Your task to perform on an android device: turn off translation in the chrome app Image 0: 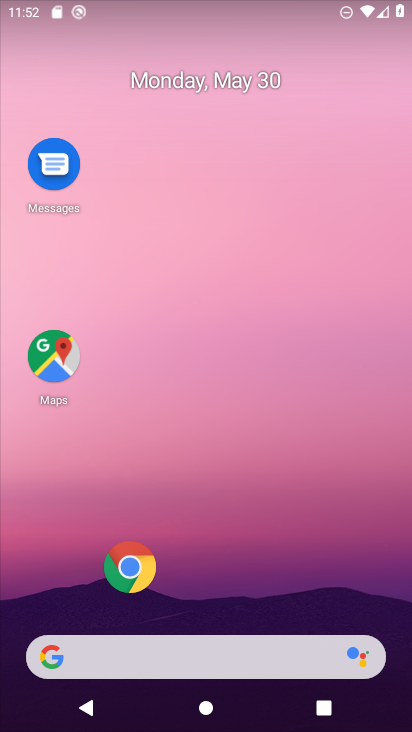
Step 0: drag from (326, 481) to (288, 55)
Your task to perform on an android device: turn off translation in the chrome app Image 1: 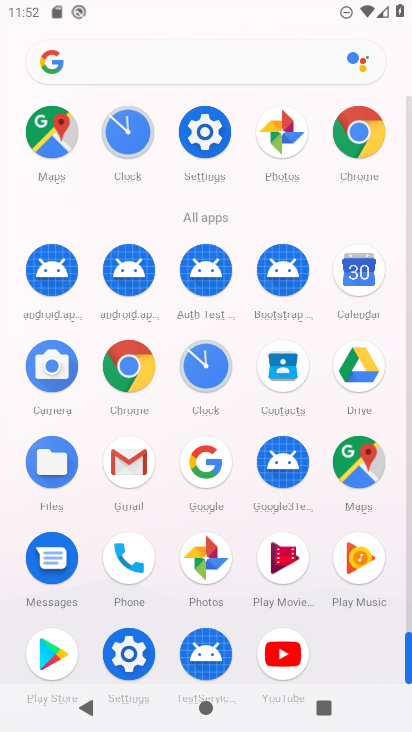
Step 1: drag from (8, 567) to (8, 265)
Your task to perform on an android device: turn off translation in the chrome app Image 2: 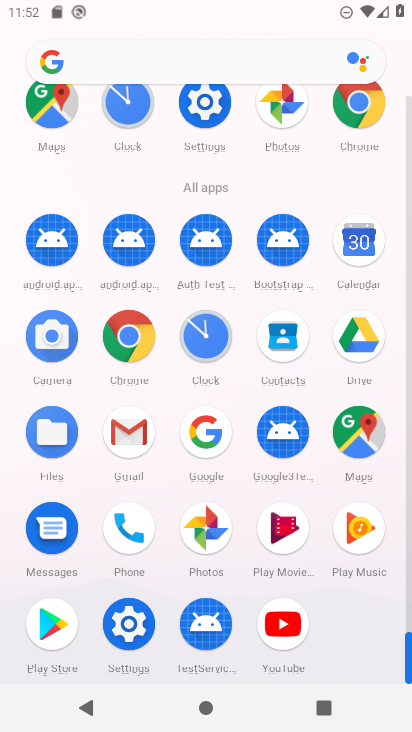
Step 2: click (122, 333)
Your task to perform on an android device: turn off translation in the chrome app Image 3: 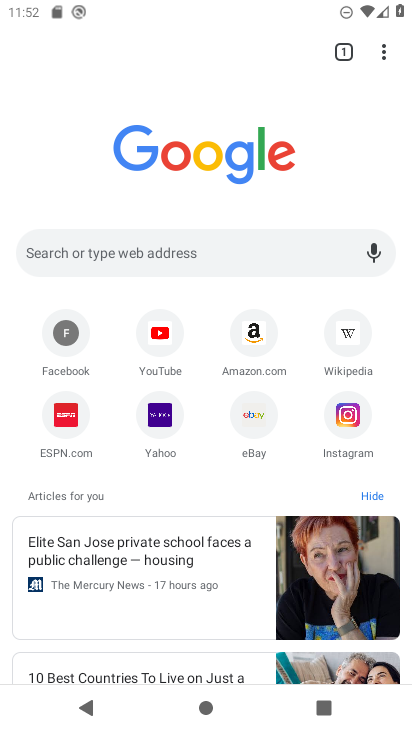
Step 3: drag from (378, 51) to (208, 427)
Your task to perform on an android device: turn off translation in the chrome app Image 4: 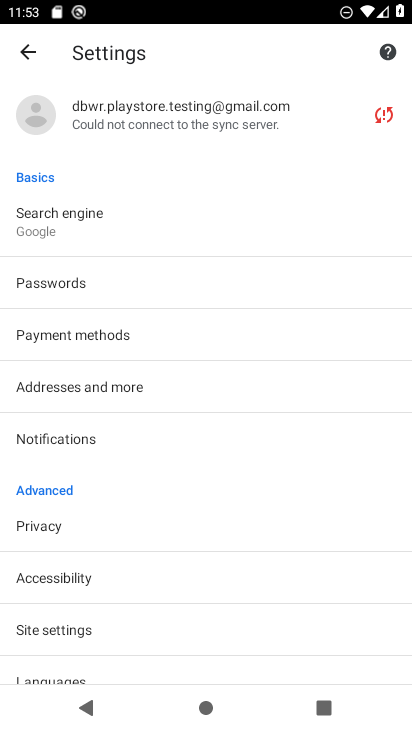
Step 4: drag from (123, 636) to (190, 285)
Your task to perform on an android device: turn off translation in the chrome app Image 5: 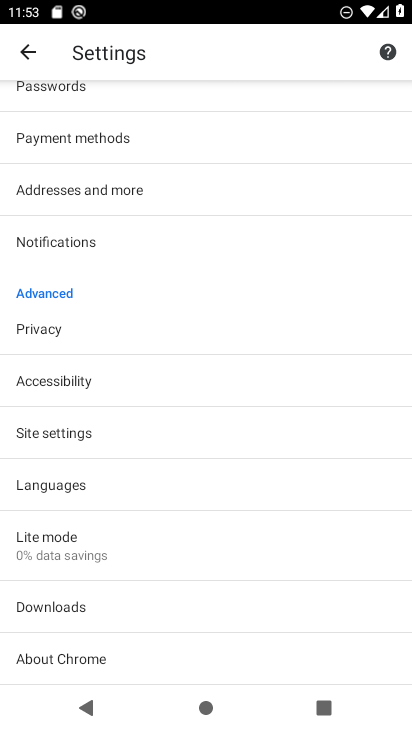
Step 5: click (92, 428)
Your task to perform on an android device: turn off translation in the chrome app Image 6: 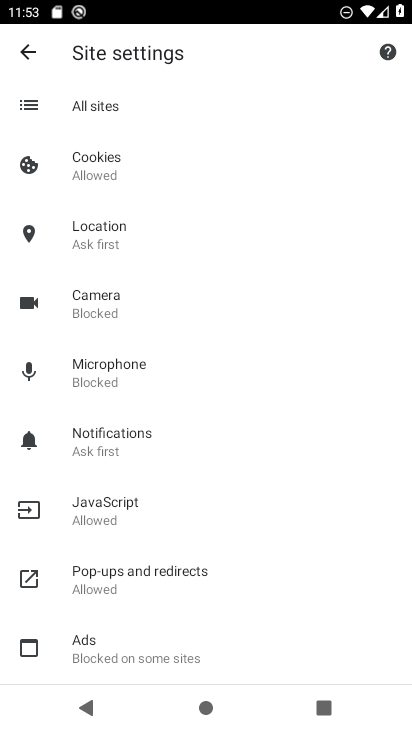
Step 6: drag from (206, 556) to (244, 164)
Your task to perform on an android device: turn off translation in the chrome app Image 7: 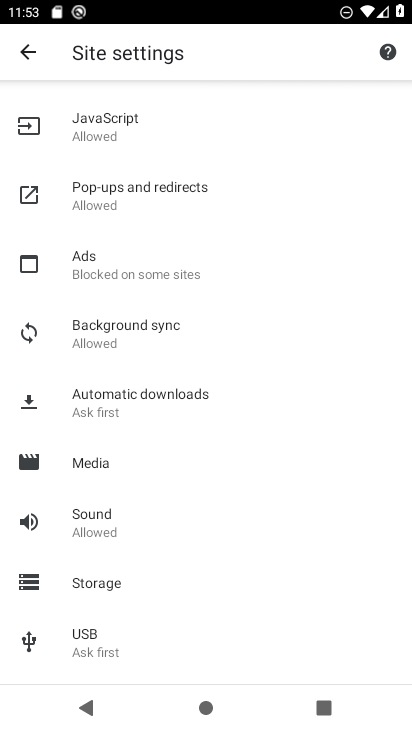
Step 7: drag from (286, 597) to (310, 183)
Your task to perform on an android device: turn off translation in the chrome app Image 8: 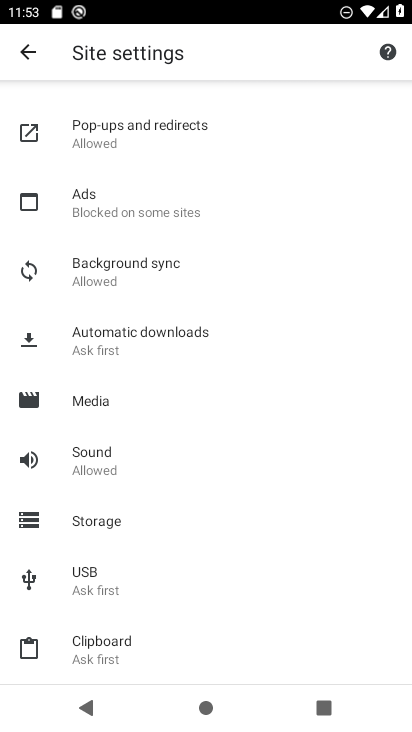
Step 8: drag from (296, 162) to (216, 636)
Your task to perform on an android device: turn off translation in the chrome app Image 9: 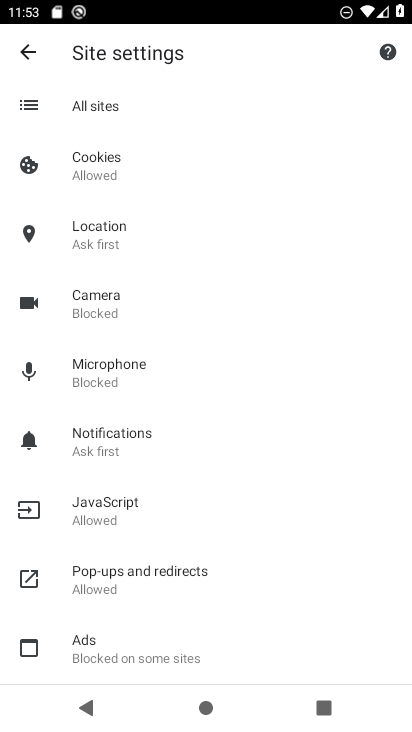
Step 9: drag from (220, 211) to (202, 611)
Your task to perform on an android device: turn off translation in the chrome app Image 10: 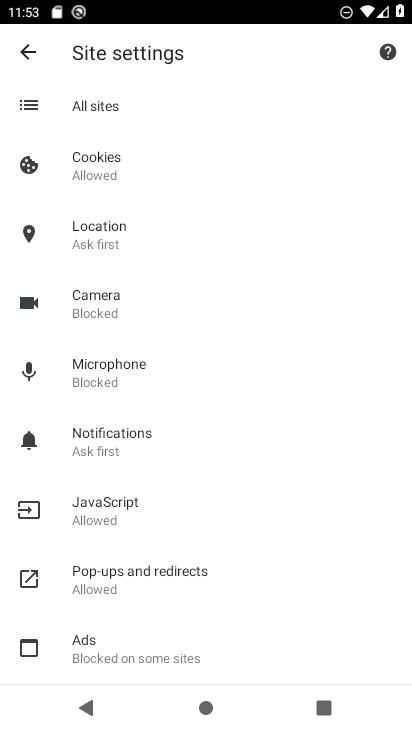
Step 10: click (36, 50)
Your task to perform on an android device: turn off translation in the chrome app Image 11: 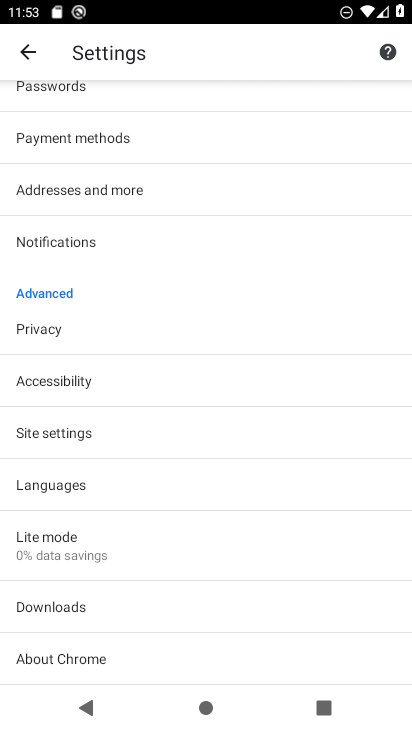
Step 11: click (112, 491)
Your task to perform on an android device: turn off translation in the chrome app Image 12: 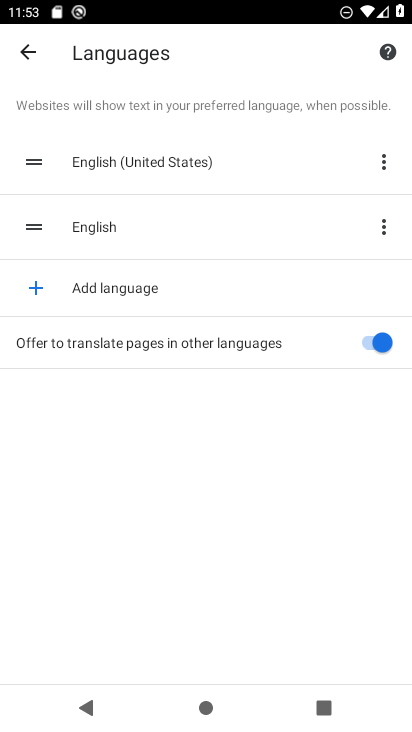
Step 12: click (360, 331)
Your task to perform on an android device: turn off translation in the chrome app Image 13: 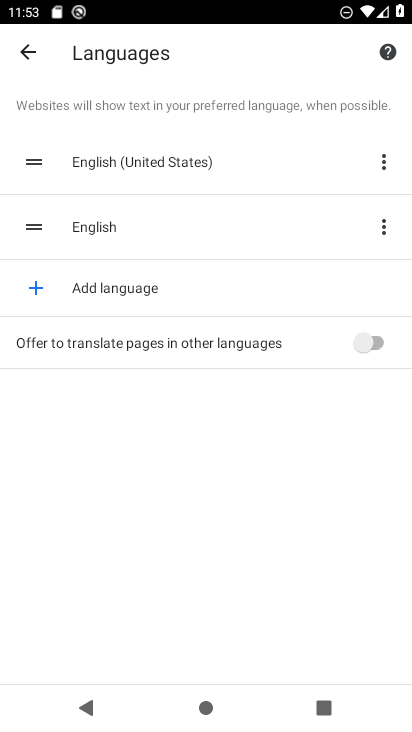
Step 13: task complete